Your task to perform on an android device: When is my next appointment? Image 0: 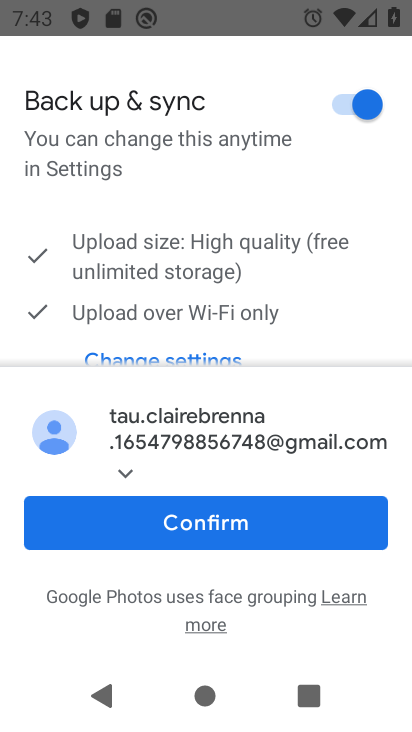
Step 0: press home button
Your task to perform on an android device: When is my next appointment? Image 1: 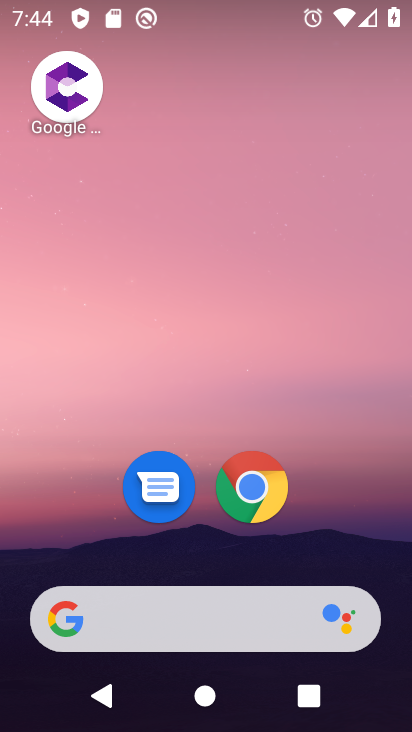
Step 1: drag from (314, 645) to (342, 174)
Your task to perform on an android device: When is my next appointment? Image 2: 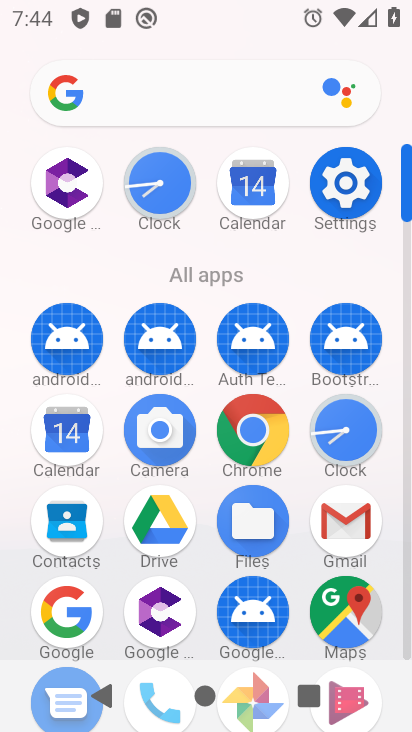
Step 2: click (261, 186)
Your task to perform on an android device: When is my next appointment? Image 3: 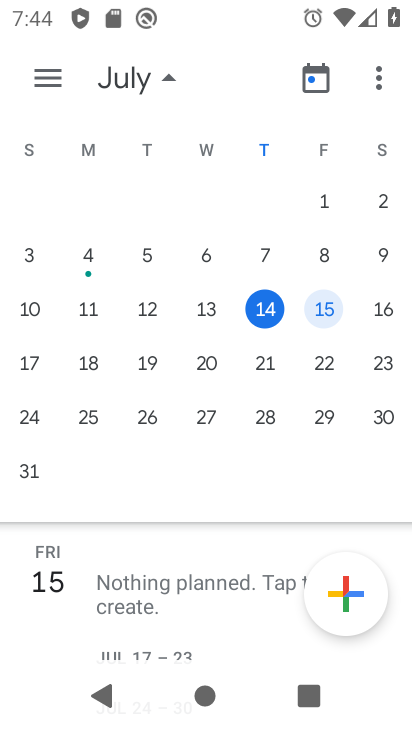
Step 3: click (48, 91)
Your task to perform on an android device: When is my next appointment? Image 4: 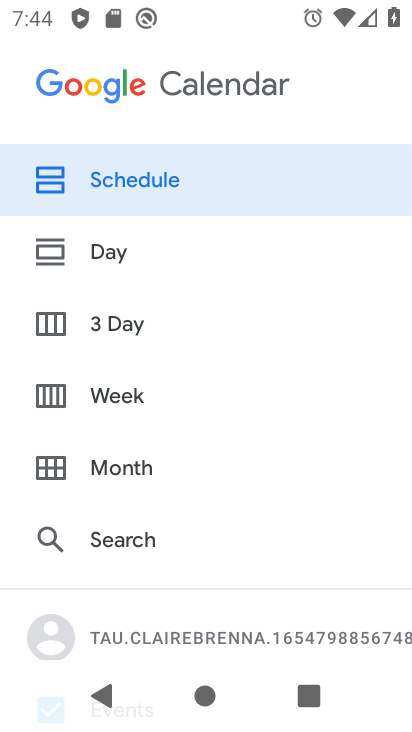
Step 4: drag from (158, 499) to (131, 61)
Your task to perform on an android device: When is my next appointment? Image 5: 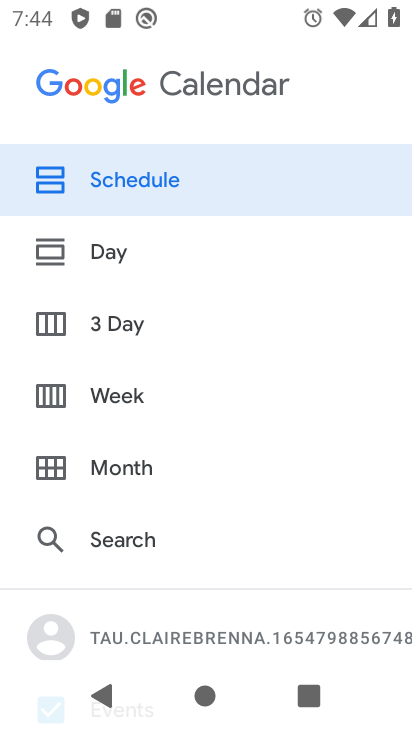
Step 5: drag from (166, 536) to (246, 127)
Your task to perform on an android device: When is my next appointment? Image 6: 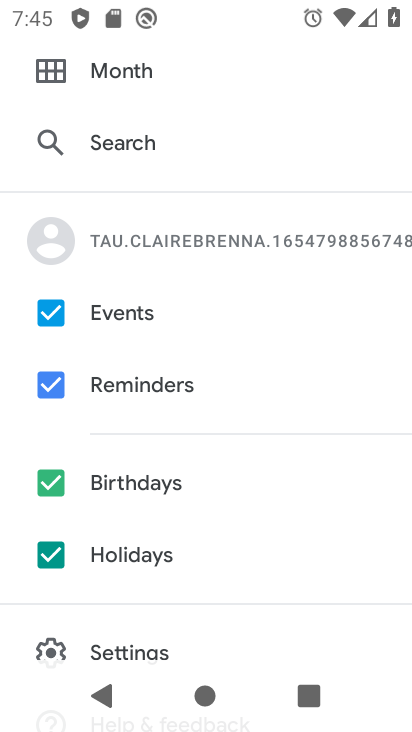
Step 6: click (46, 577)
Your task to perform on an android device: When is my next appointment? Image 7: 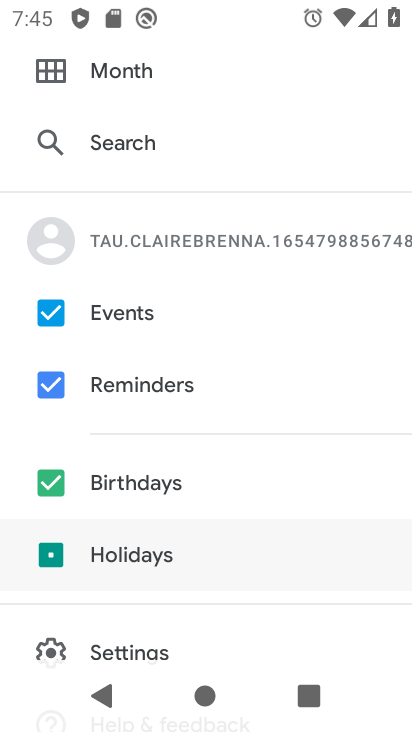
Step 7: click (67, 480)
Your task to perform on an android device: When is my next appointment? Image 8: 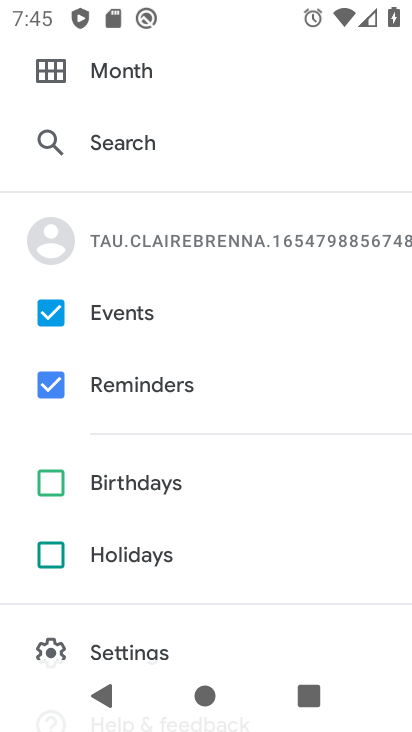
Step 8: task complete